Your task to perform on an android device: Open Google Maps and go to "Timeline" Image 0: 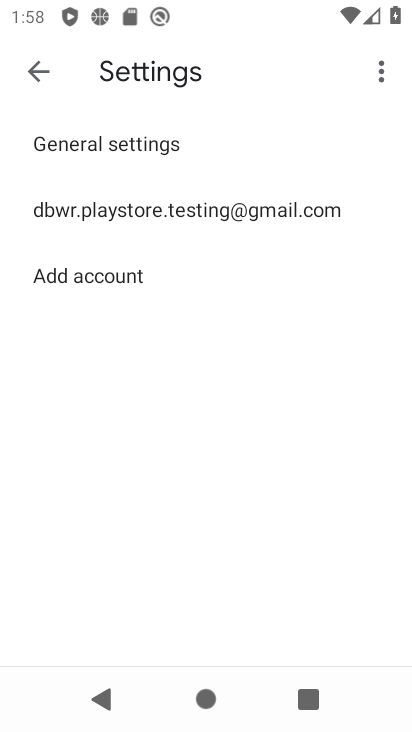
Step 0: press home button
Your task to perform on an android device: Open Google Maps and go to "Timeline" Image 1: 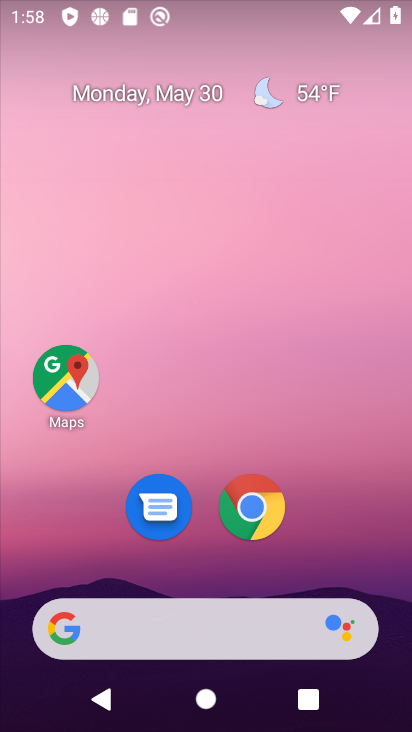
Step 1: drag from (399, 663) to (291, 24)
Your task to perform on an android device: Open Google Maps and go to "Timeline" Image 2: 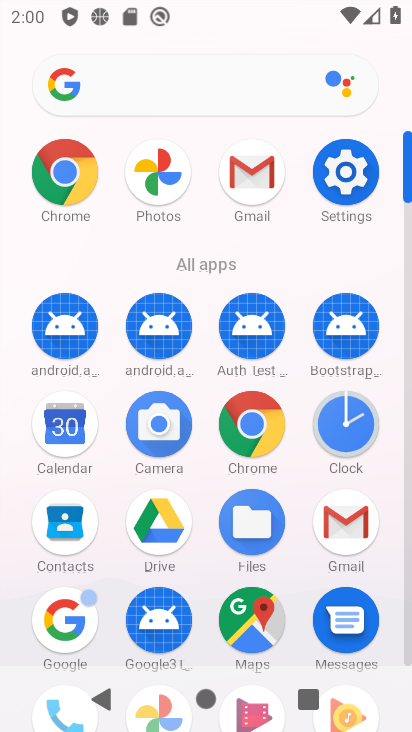
Step 2: click (247, 642)
Your task to perform on an android device: Open Google Maps and go to "Timeline" Image 3: 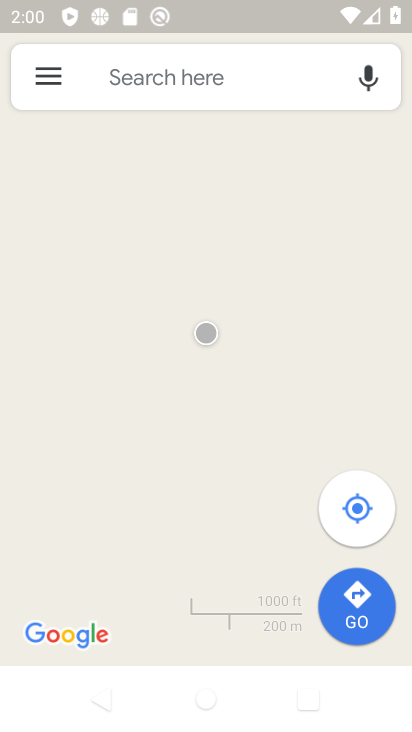
Step 3: click (44, 81)
Your task to perform on an android device: Open Google Maps and go to "Timeline" Image 4: 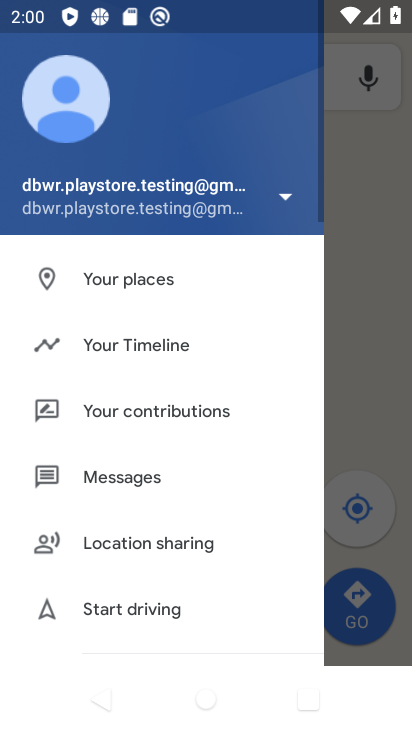
Step 4: click (130, 347)
Your task to perform on an android device: Open Google Maps and go to "Timeline" Image 5: 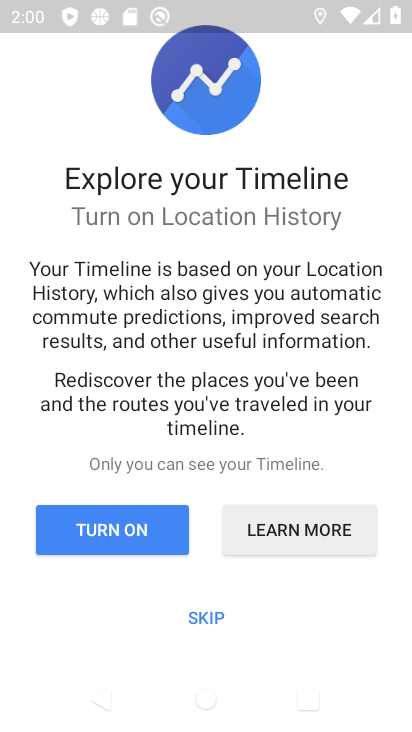
Step 5: task complete